Your task to perform on an android device: toggle location history Image 0: 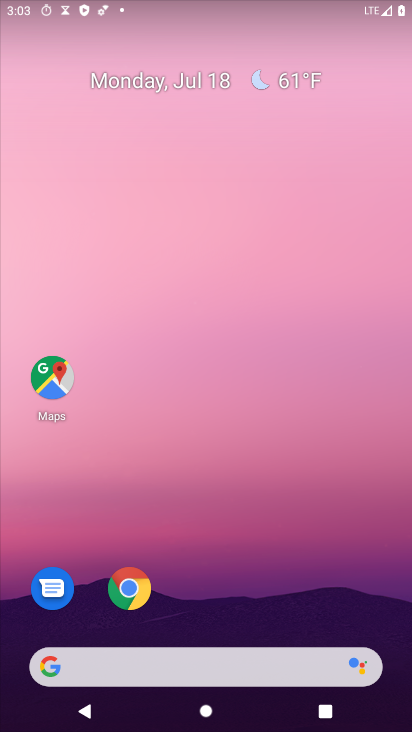
Step 0: drag from (299, 552) to (288, 107)
Your task to perform on an android device: toggle location history Image 1: 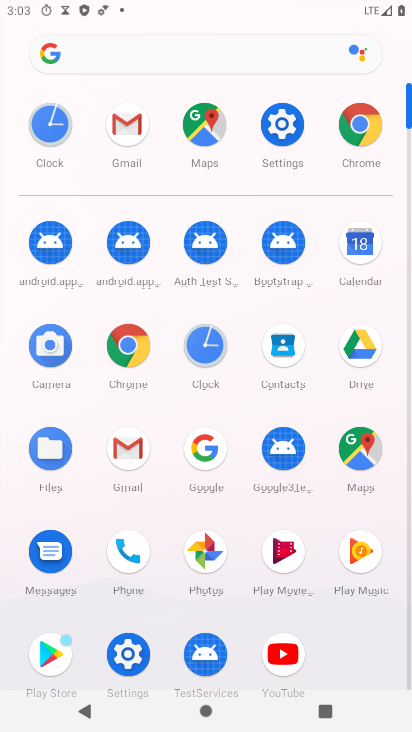
Step 1: click (280, 103)
Your task to perform on an android device: toggle location history Image 2: 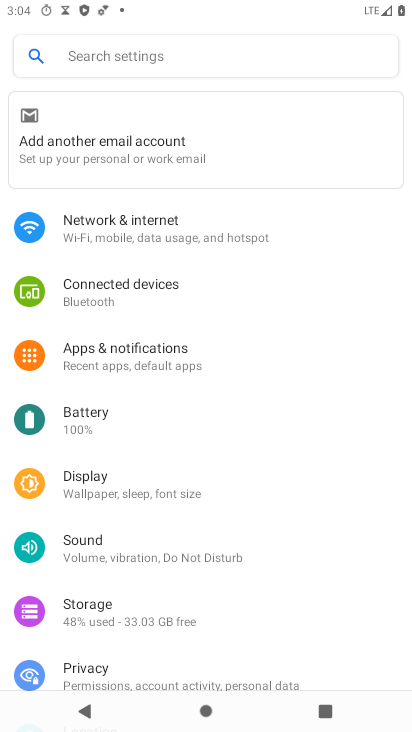
Step 2: drag from (165, 609) to (194, 249)
Your task to perform on an android device: toggle location history Image 3: 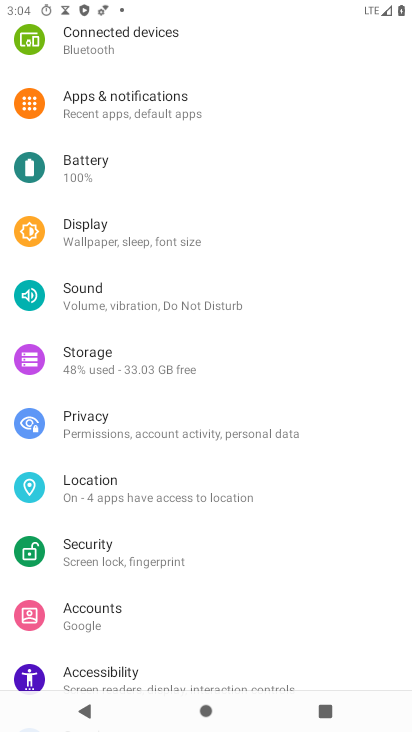
Step 3: click (99, 483)
Your task to perform on an android device: toggle location history Image 4: 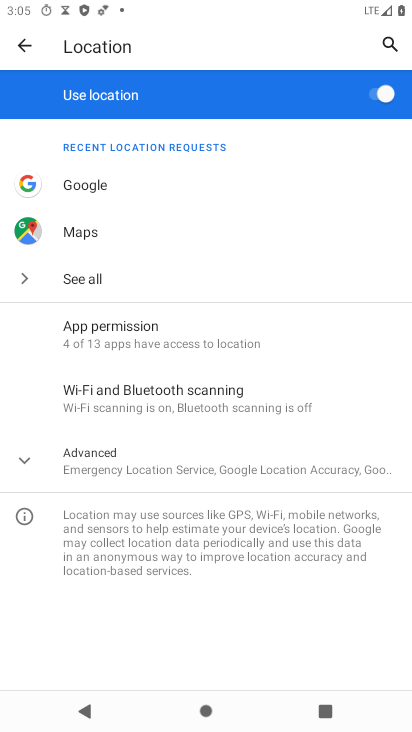
Step 4: click (131, 452)
Your task to perform on an android device: toggle location history Image 5: 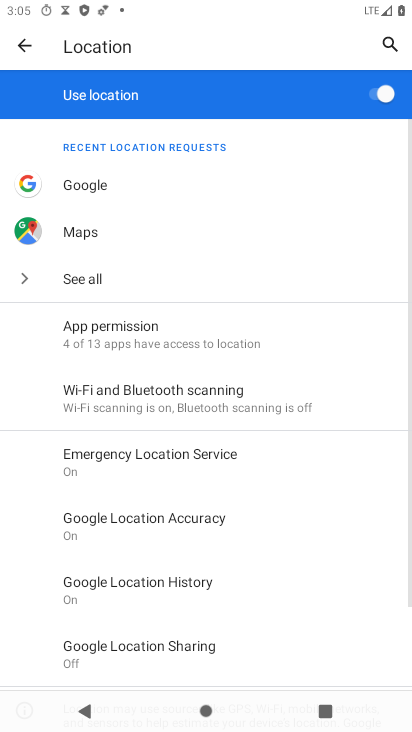
Step 5: drag from (158, 524) to (233, 181)
Your task to perform on an android device: toggle location history Image 6: 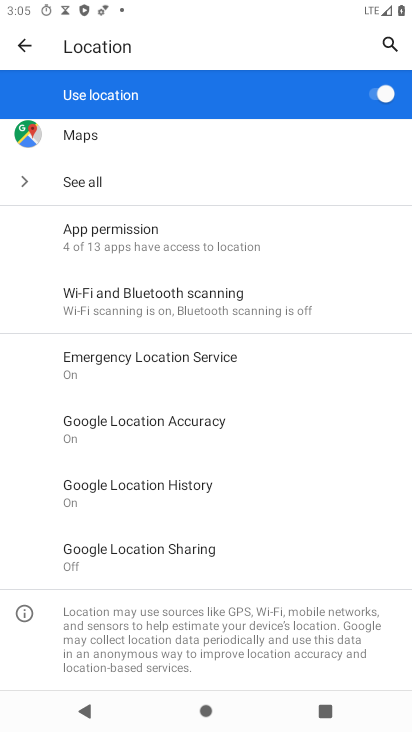
Step 6: click (153, 493)
Your task to perform on an android device: toggle location history Image 7: 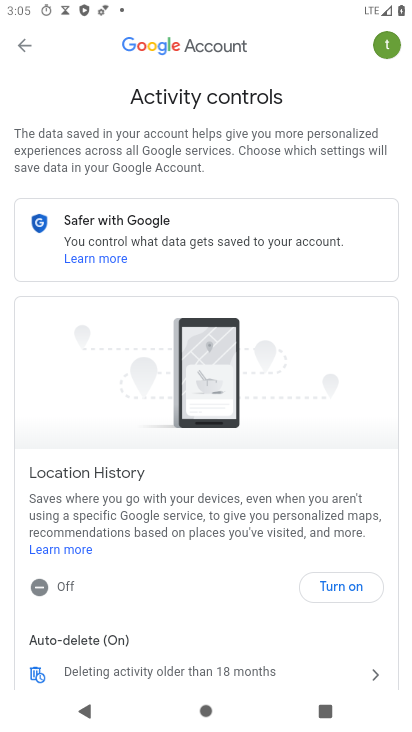
Step 7: click (348, 590)
Your task to perform on an android device: toggle location history Image 8: 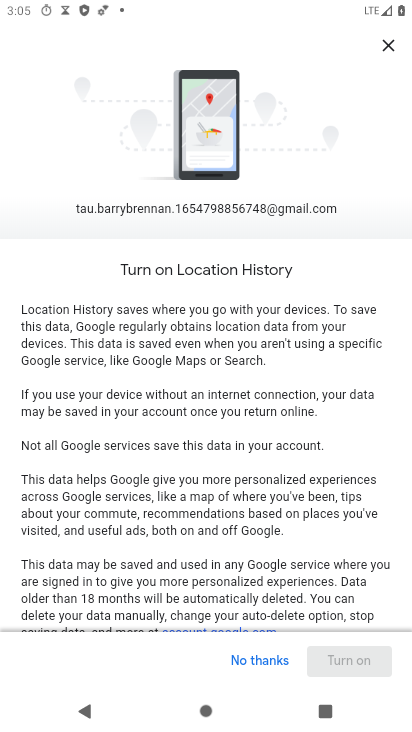
Step 8: drag from (306, 398) to (274, 76)
Your task to perform on an android device: toggle location history Image 9: 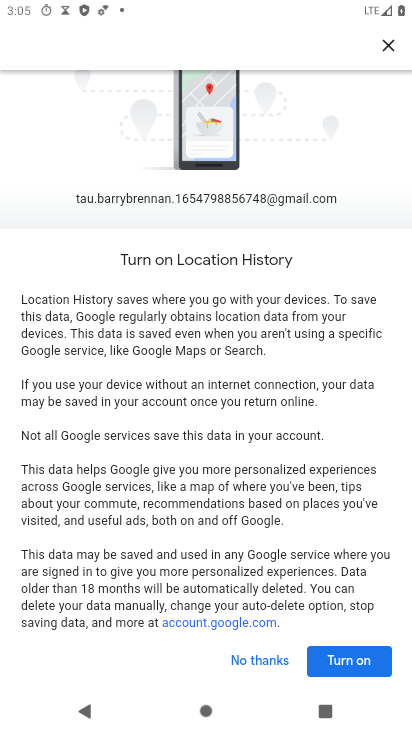
Step 9: click (349, 664)
Your task to perform on an android device: toggle location history Image 10: 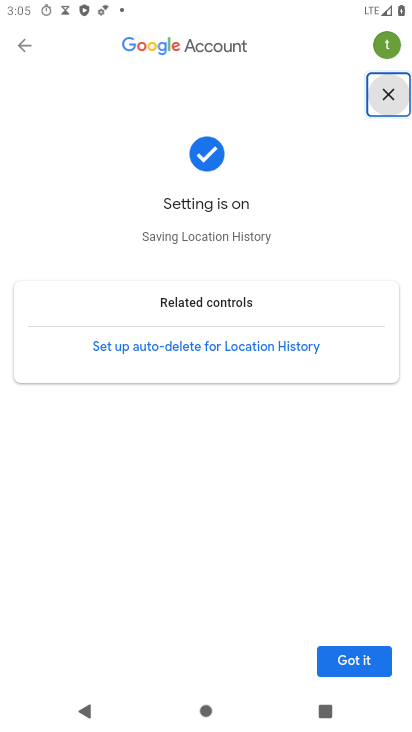
Step 10: click (359, 653)
Your task to perform on an android device: toggle location history Image 11: 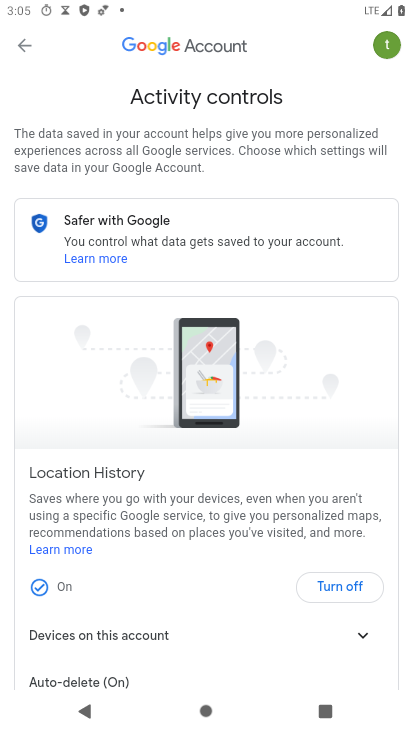
Step 11: task complete